Your task to perform on an android device: Open Amazon Image 0: 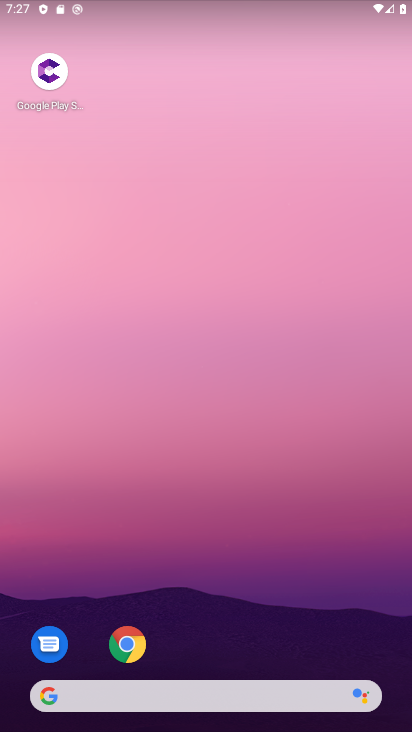
Step 0: drag from (235, 673) to (264, 103)
Your task to perform on an android device: Open Amazon Image 1: 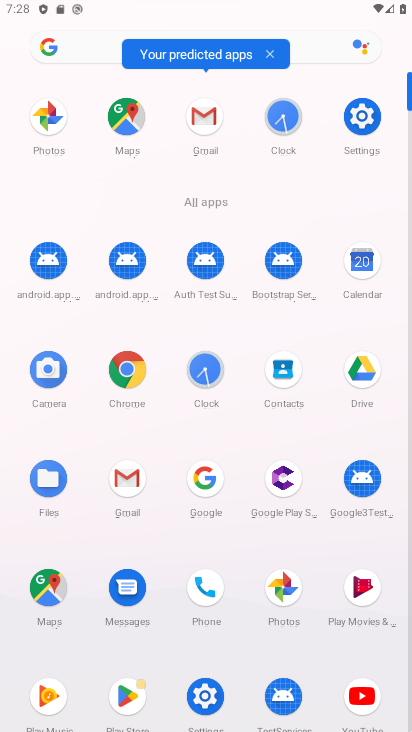
Step 1: click (211, 484)
Your task to perform on an android device: Open Amazon Image 2: 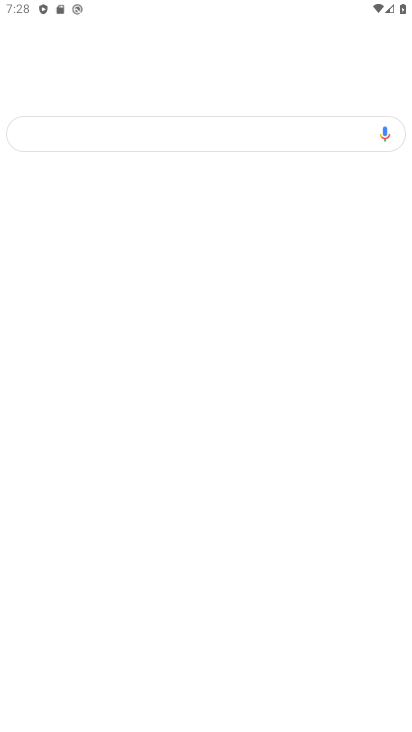
Step 2: click (208, 474)
Your task to perform on an android device: Open Amazon Image 3: 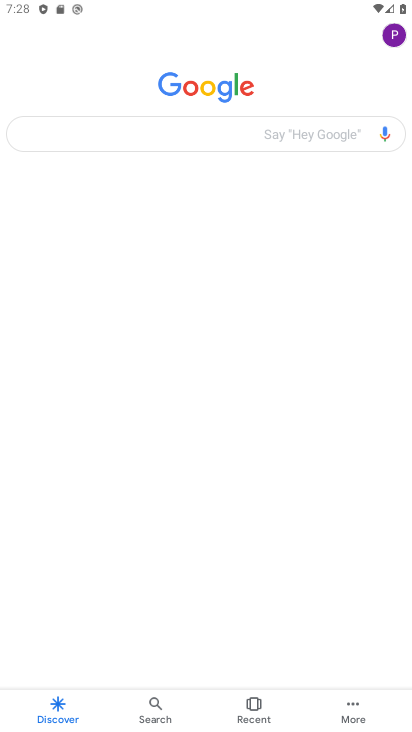
Step 3: click (67, 133)
Your task to perform on an android device: Open Amazon Image 4: 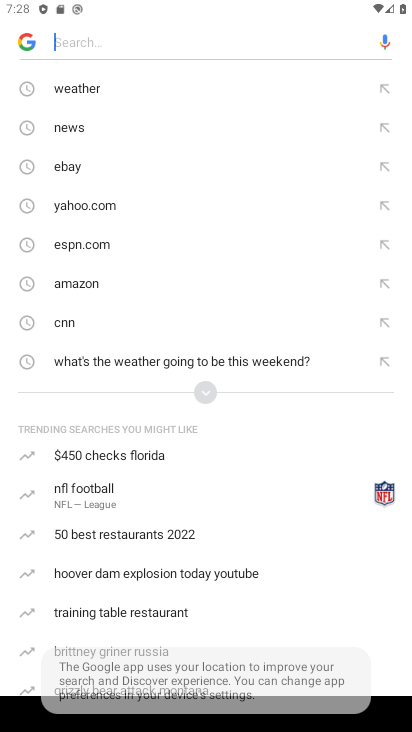
Step 4: click (72, 278)
Your task to perform on an android device: Open Amazon Image 5: 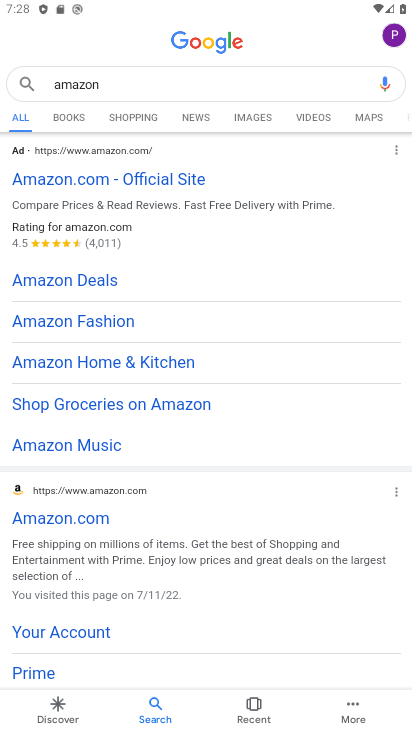
Step 5: click (80, 178)
Your task to perform on an android device: Open Amazon Image 6: 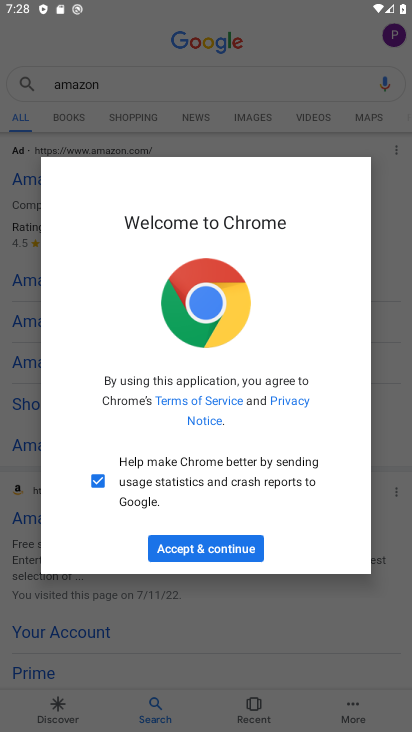
Step 6: click (276, 549)
Your task to perform on an android device: Open Amazon Image 7: 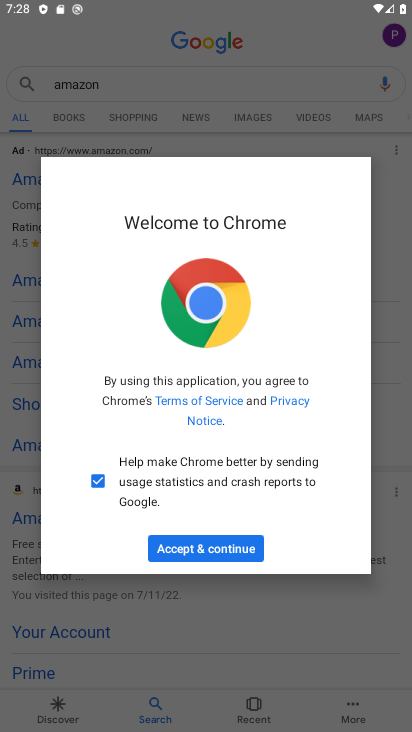
Step 7: click (234, 549)
Your task to perform on an android device: Open Amazon Image 8: 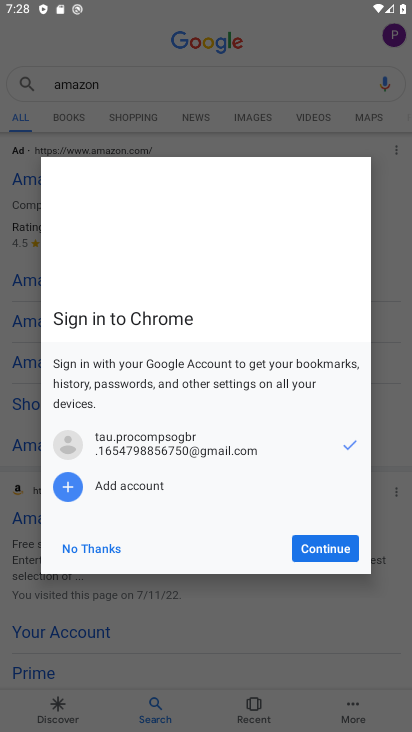
Step 8: click (318, 549)
Your task to perform on an android device: Open Amazon Image 9: 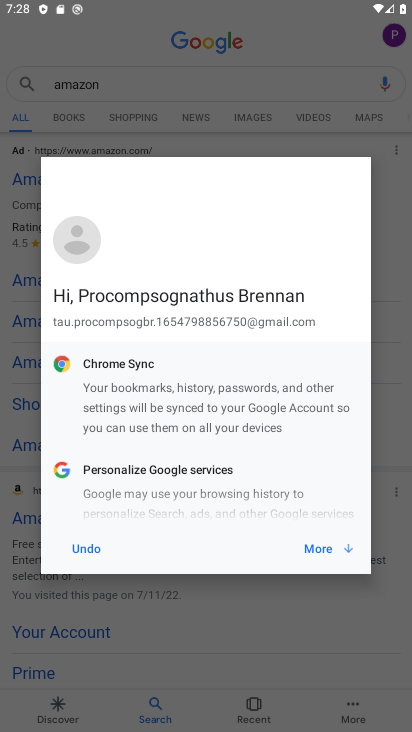
Step 9: click (318, 549)
Your task to perform on an android device: Open Amazon Image 10: 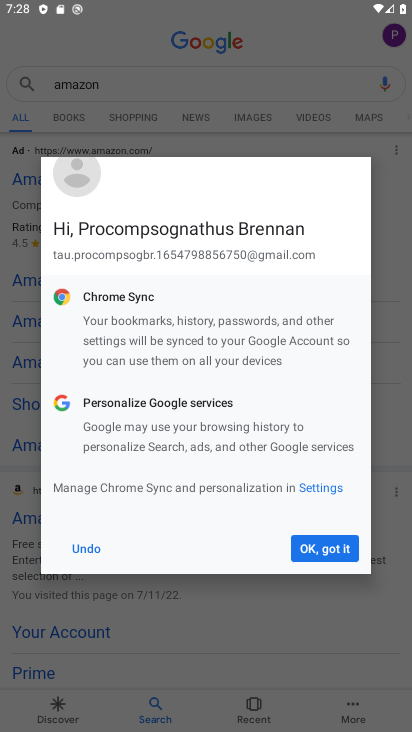
Step 10: click (318, 549)
Your task to perform on an android device: Open Amazon Image 11: 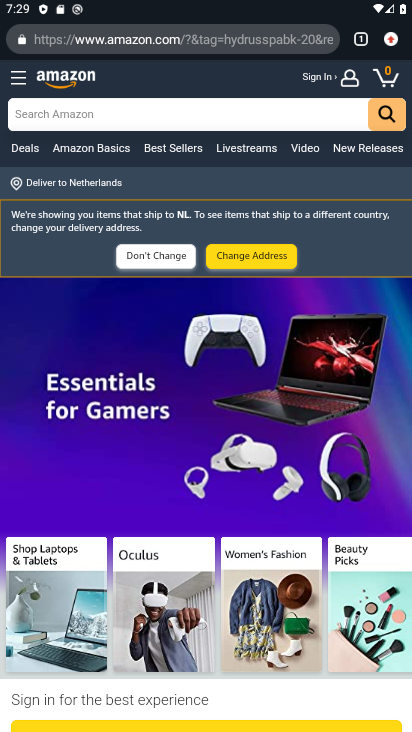
Step 11: task complete